Your task to perform on an android device: When is my next meeting? Image 0: 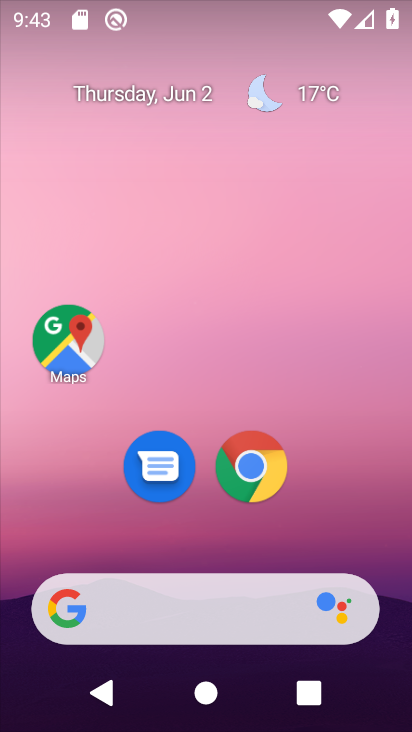
Step 0: drag from (145, 527) to (110, 103)
Your task to perform on an android device: When is my next meeting? Image 1: 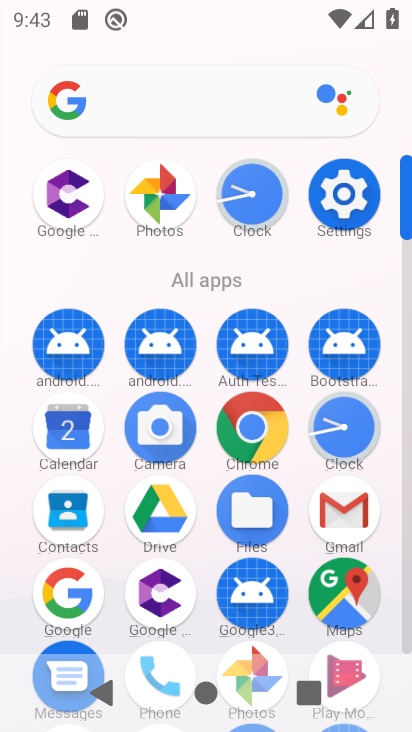
Step 1: click (71, 421)
Your task to perform on an android device: When is my next meeting? Image 2: 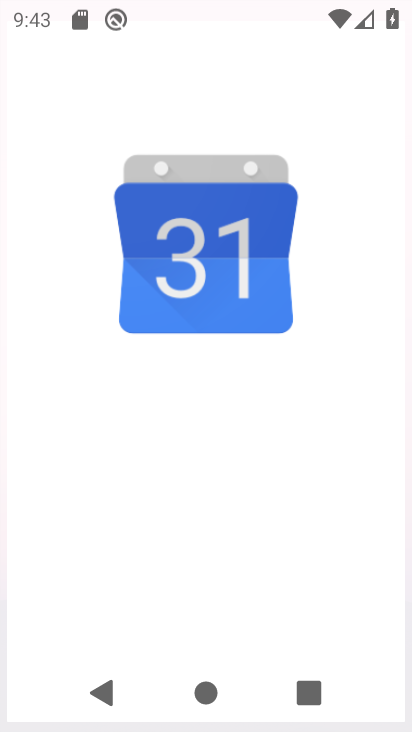
Step 2: click (71, 421)
Your task to perform on an android device: When is my next meeting? Image 3: 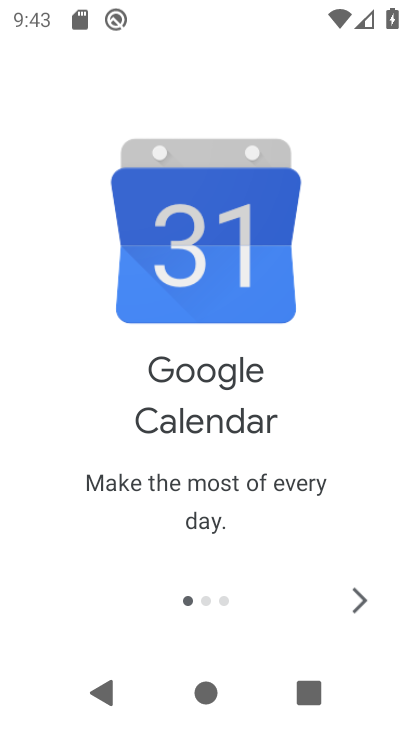
Step 3: click (347, 586)
Your task to perform on an android device: When is my next meeting? Image 4: 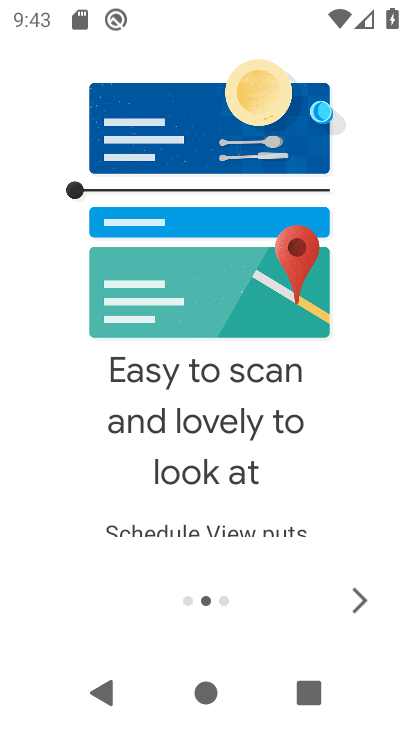
Step 4: click (358, 590)
Your task to perform on an android device: When is my next meeting? Image 5: 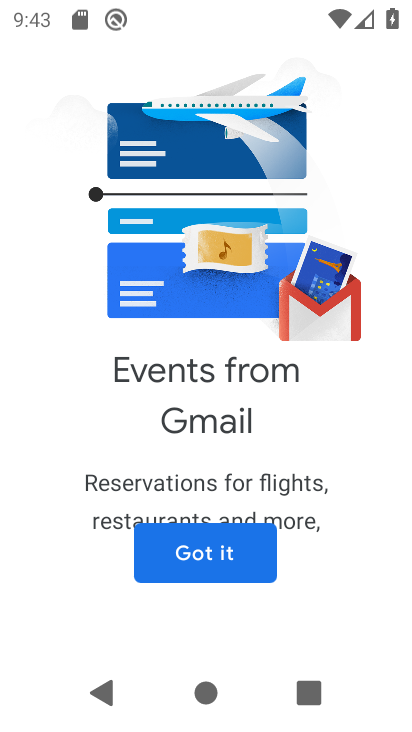
Step 5: click (194, 552)
Your task to perform on an android device: When is my next meeting? Image 6: 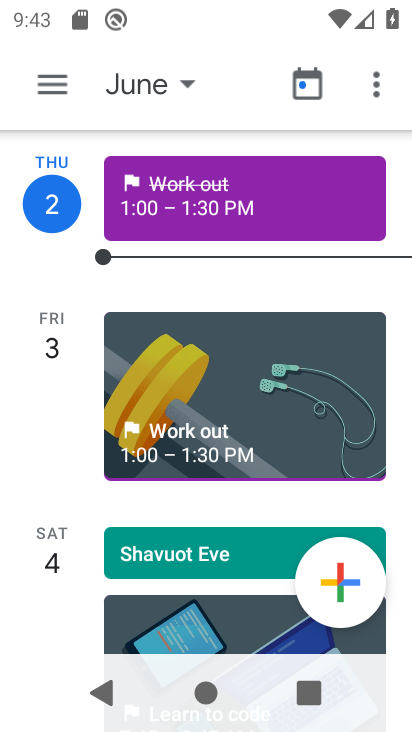
Step 6: task complete